Your task to perform on an android device: Where can I buy a nice beach cooler? Image 0: 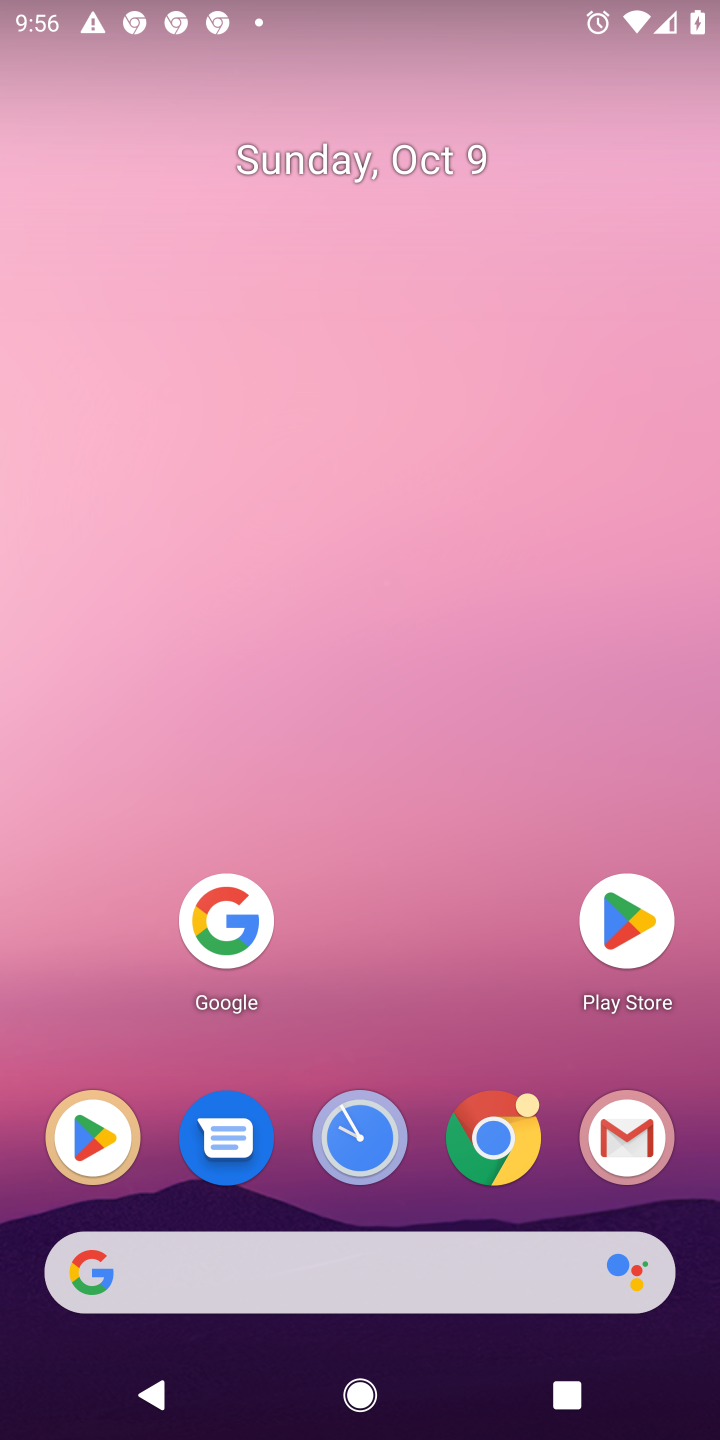
Step 0: click (221, 916)
Your task to perform on an android device: Where can I buy a nice beach cooler? Image 1: 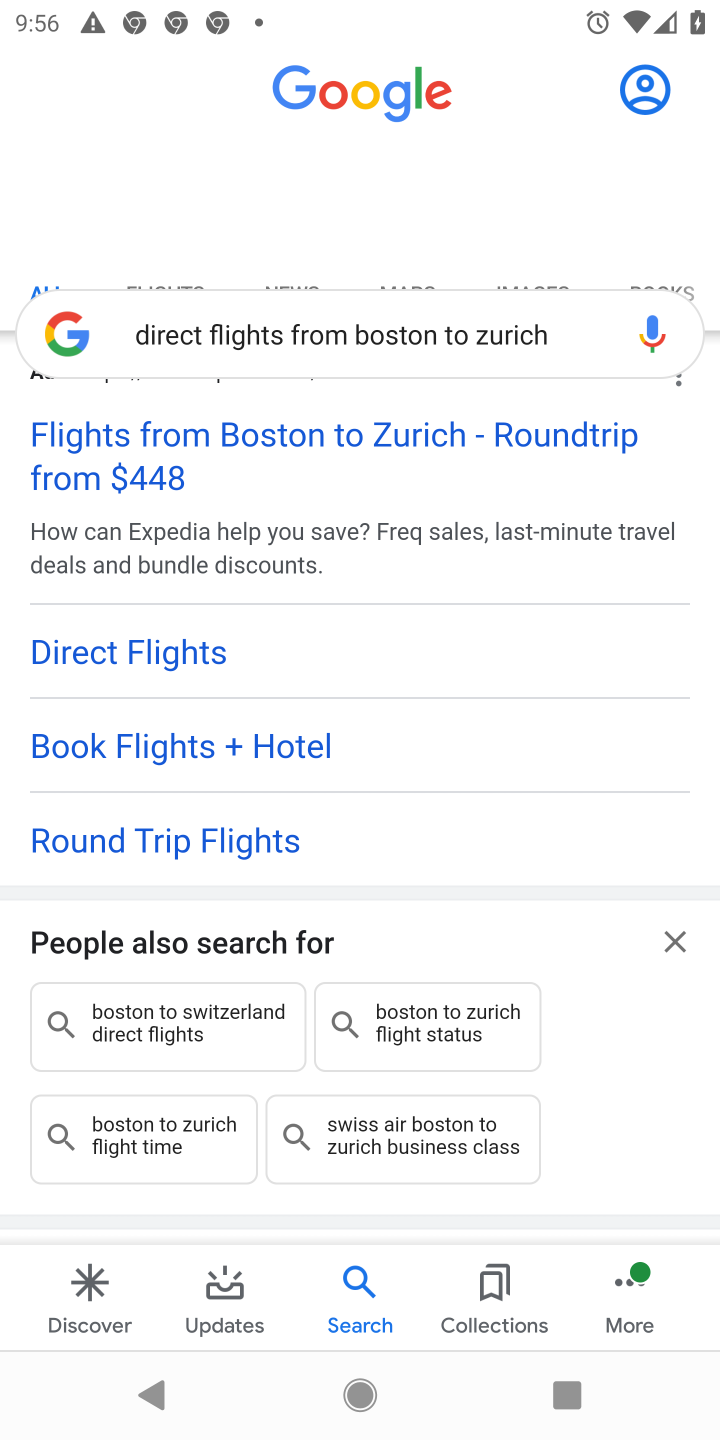
Step 1: click (426, 317)
Your task to perform on an android device: Where can I buy a nice beach cooler? Image 2: 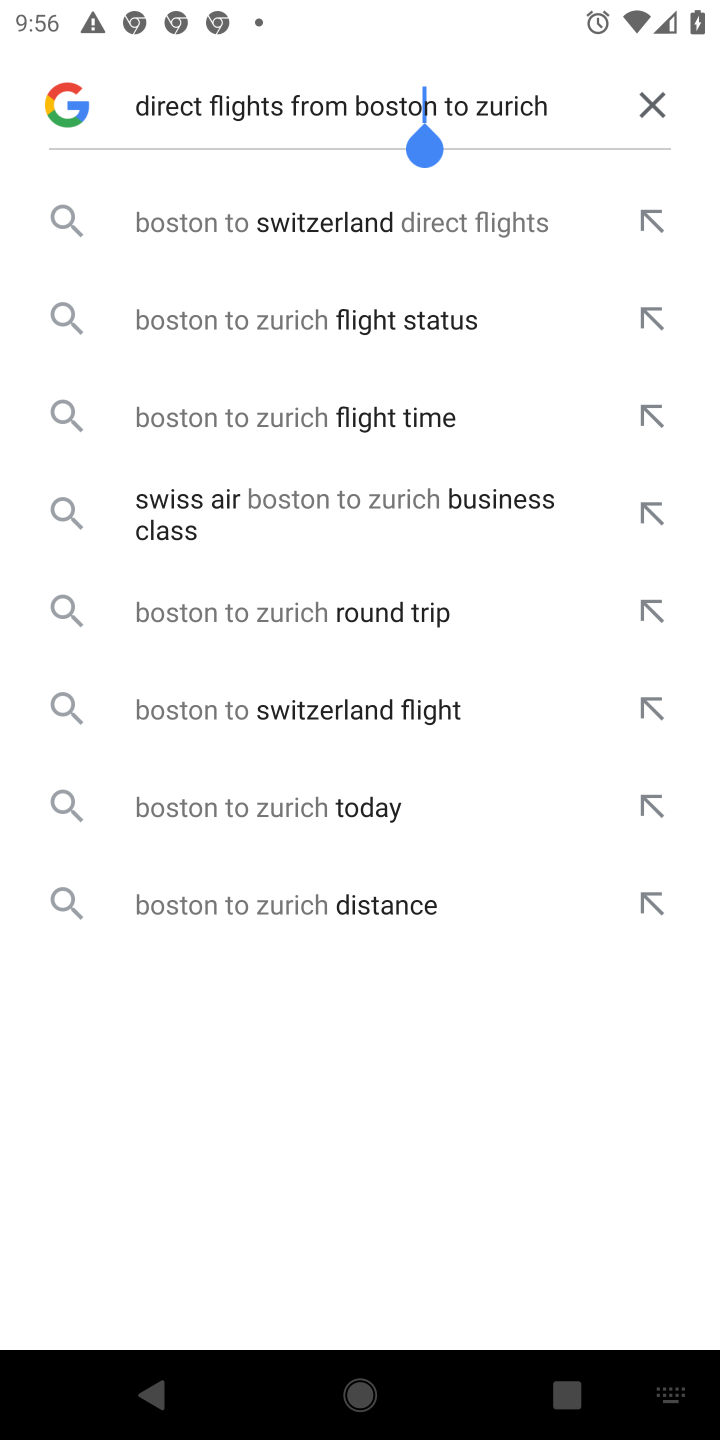
Step 2: click (657, 82)
Your task to perform on an android device: Where can I buy a nice beach cooler? Image 3: 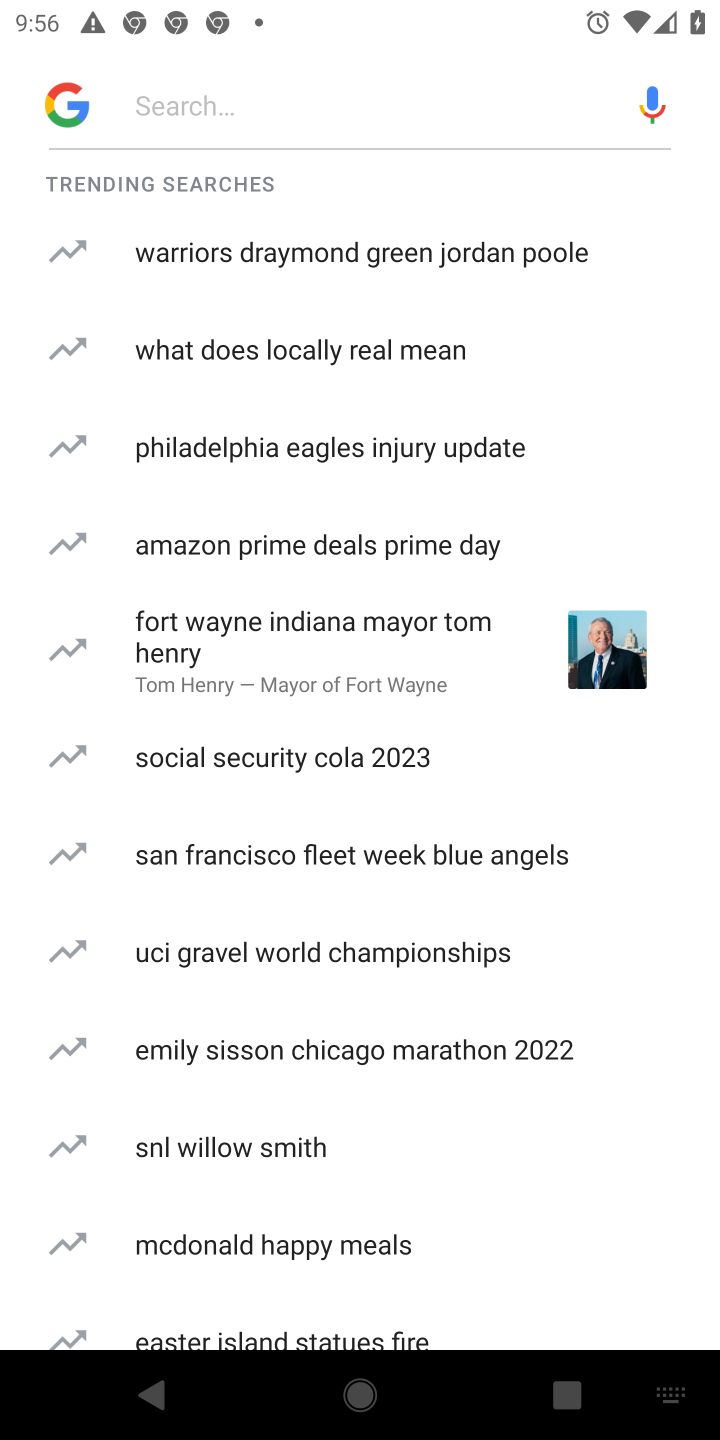
Step 3: click (274, 80)
Your task to perform on an android device: Where can I buy a nice beach cooler? Image 4: 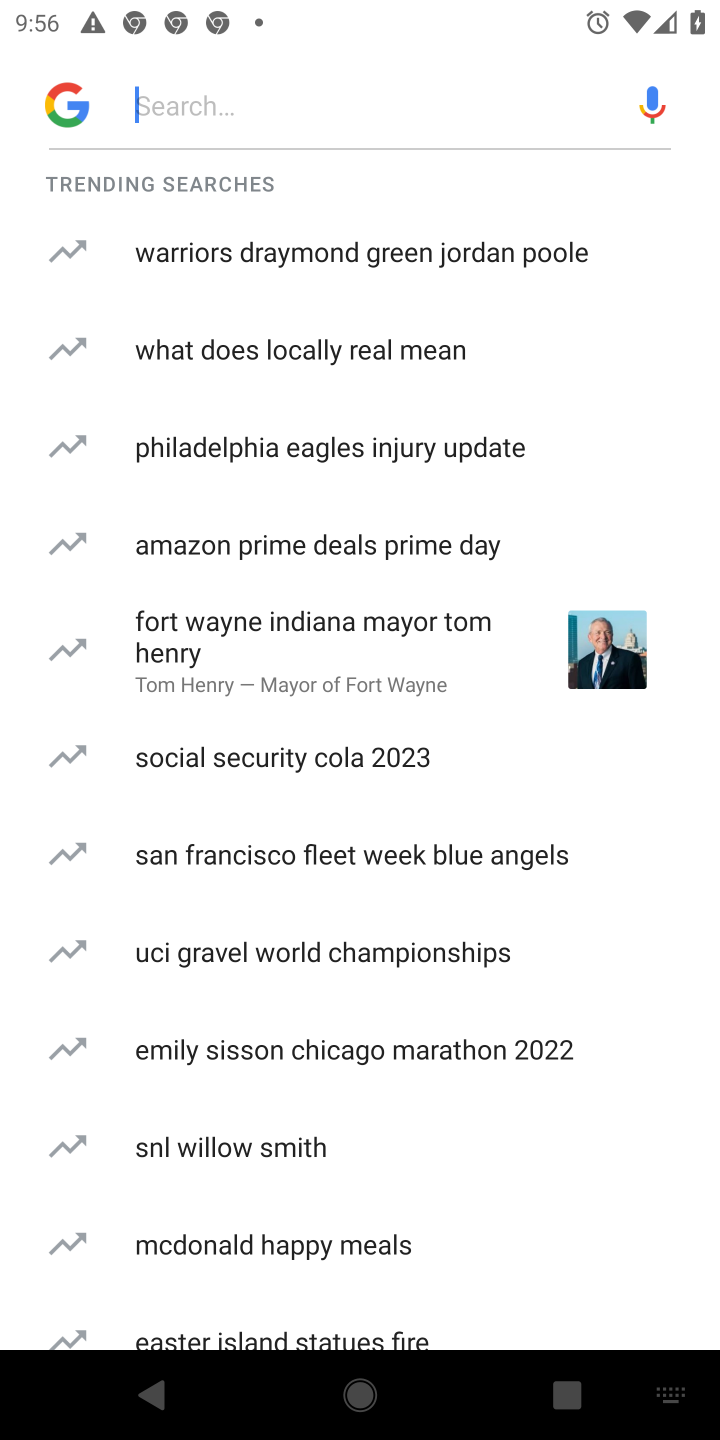
Step 4: click (328, 81)
Your task to perform on an android device: Where can I buy a nice beach cooler? Image 5: 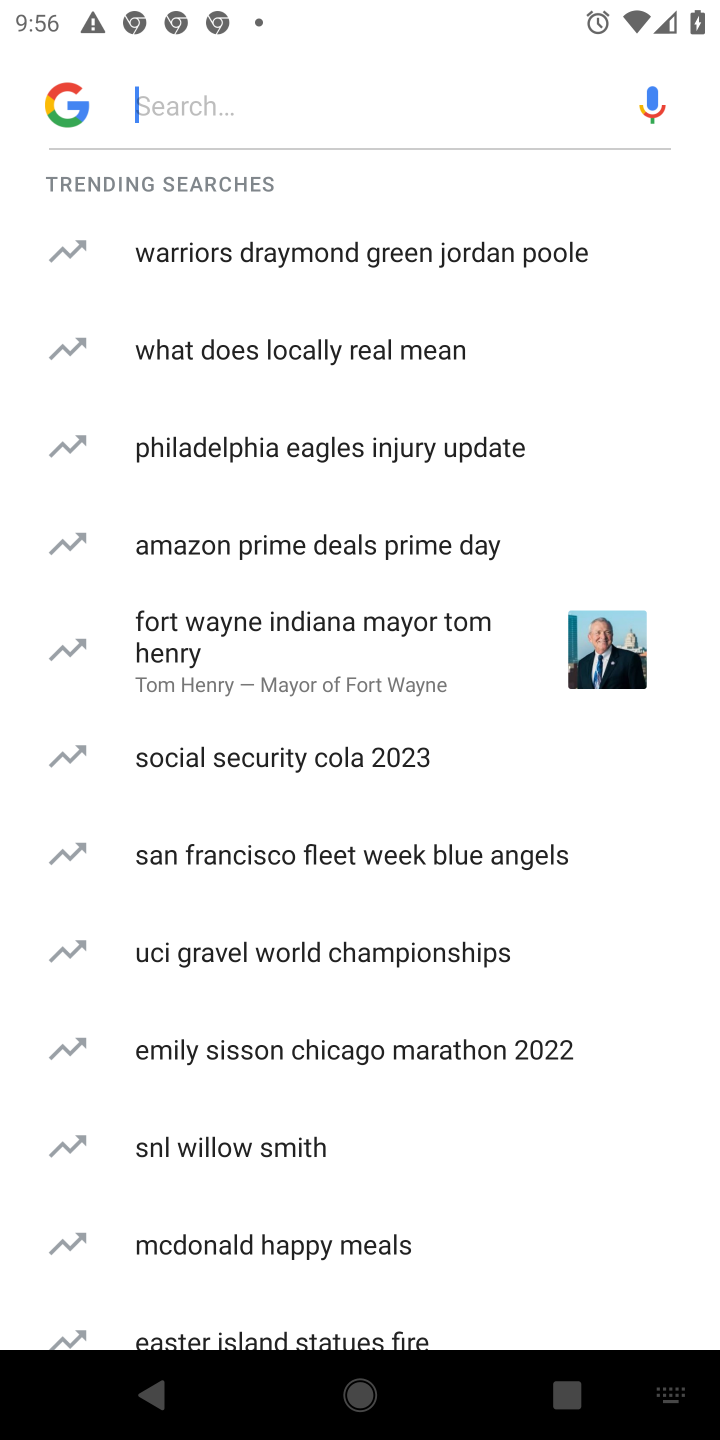
Step 5: type "flights from Boston to Zurich \\\\\\\\\\\"
Your task to perform on an android device: Where can I buy a nice beach cooler? Image 6: 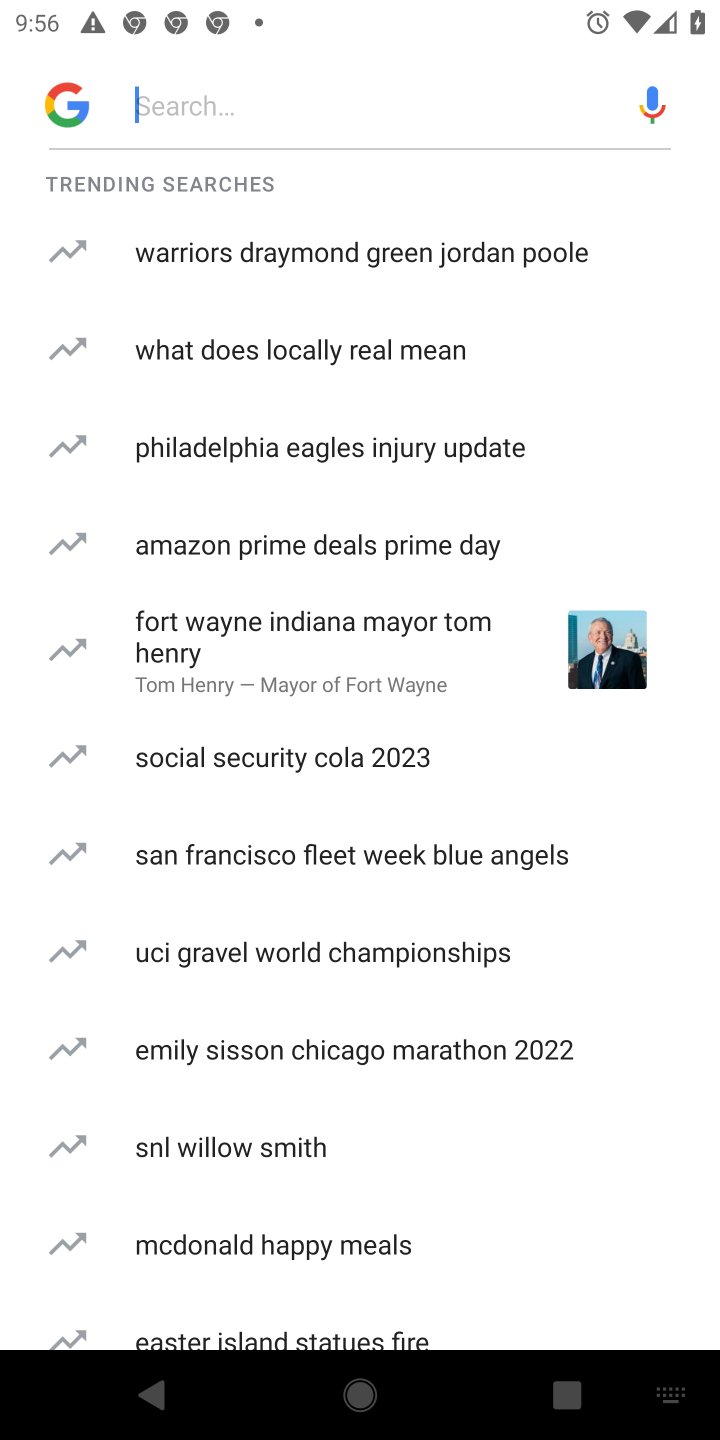
Step 6: click (361, 71)
Your task to perform on an android device: Where can I buy a nice beach cooler? Image 7: 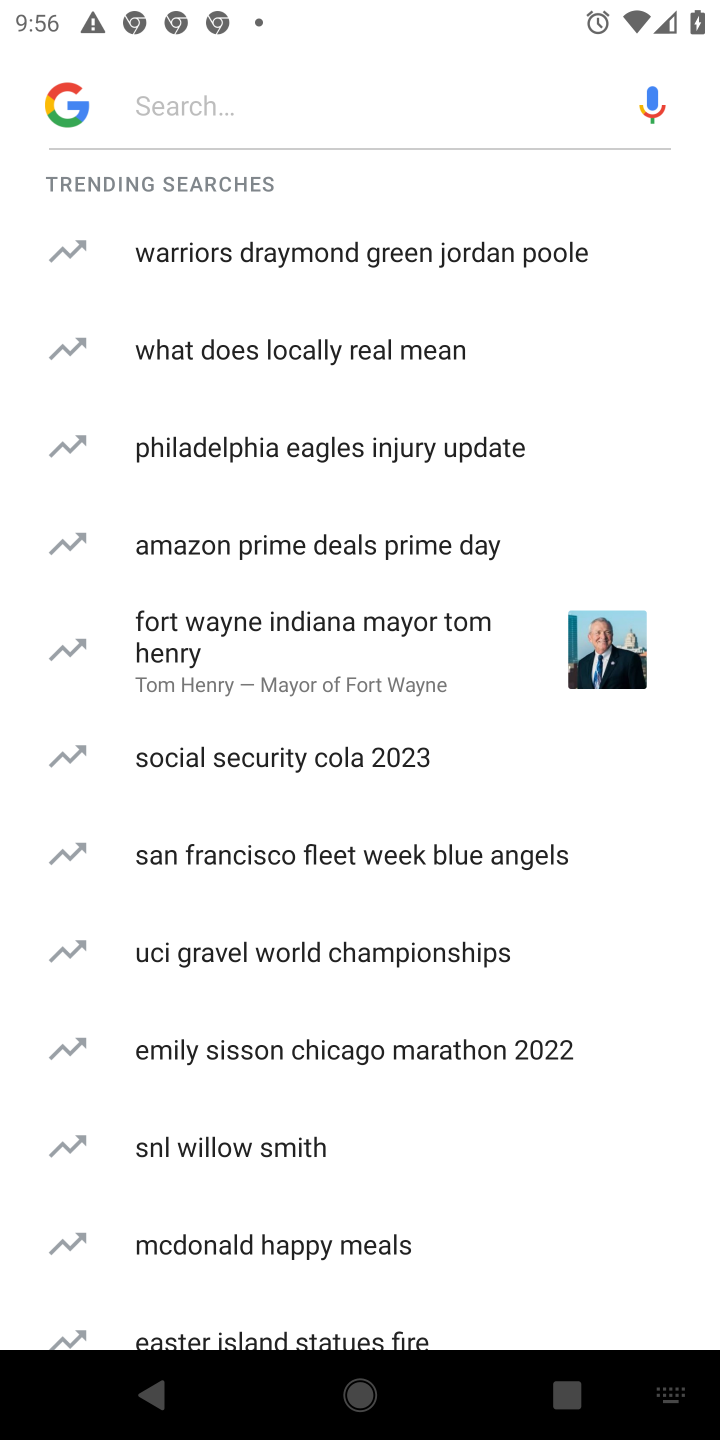
Step 7: type "Where can I buy a nice beach cooler? "
Your task to perform on an android device: Where can I buy a nice beach cooler? Image 8: 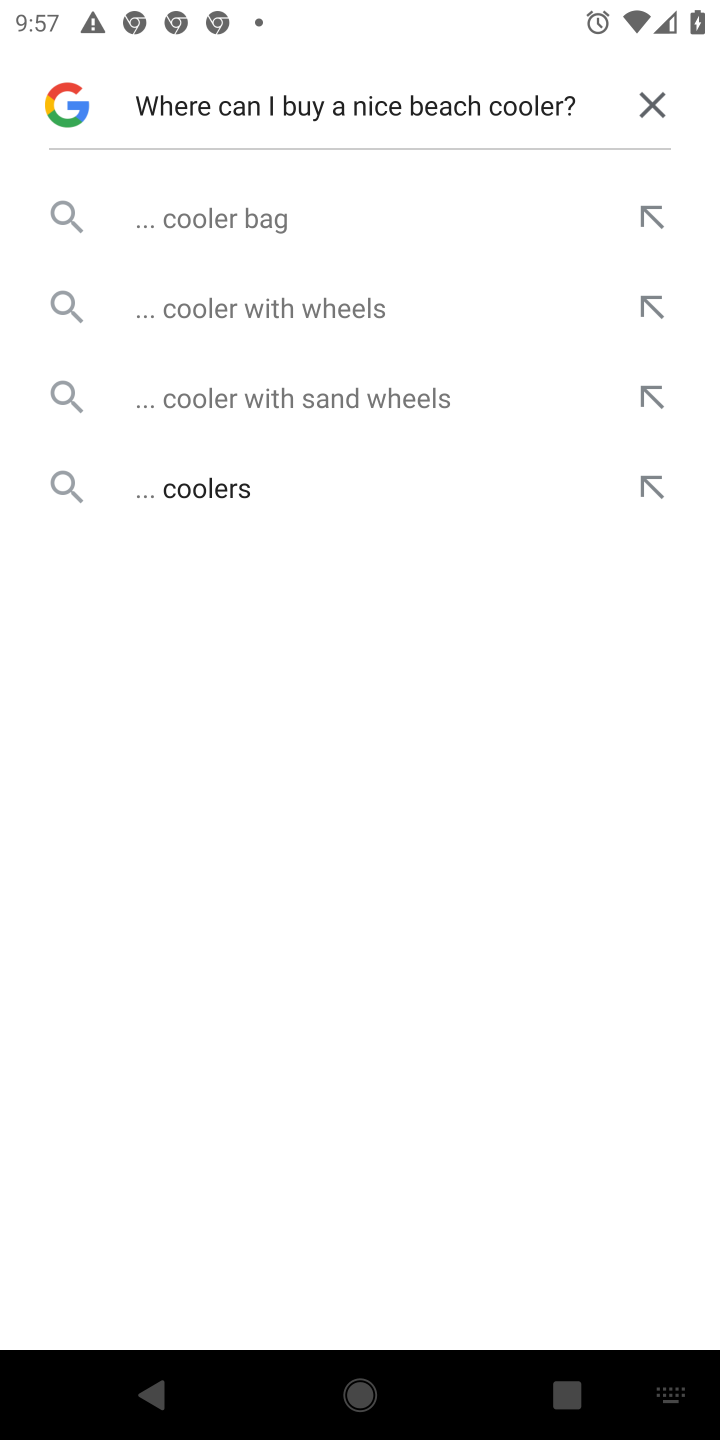
Step 8: click (226, 491)
Your task to perform on an android device: Where can I buy a nice beach cooler? Image 9: 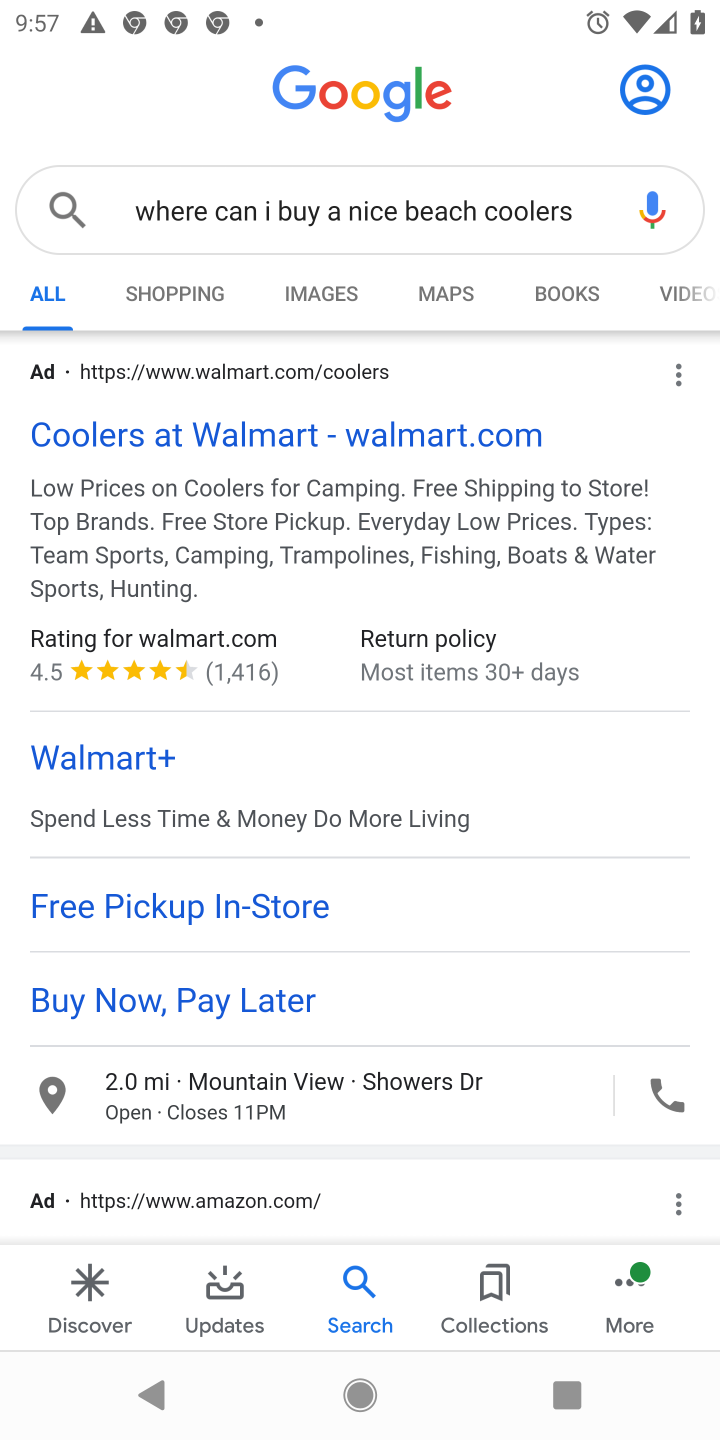
Step 9: click (246, 444)
Your task to perform on an android device: Where can I buy a nice beach cooler? Image 10: 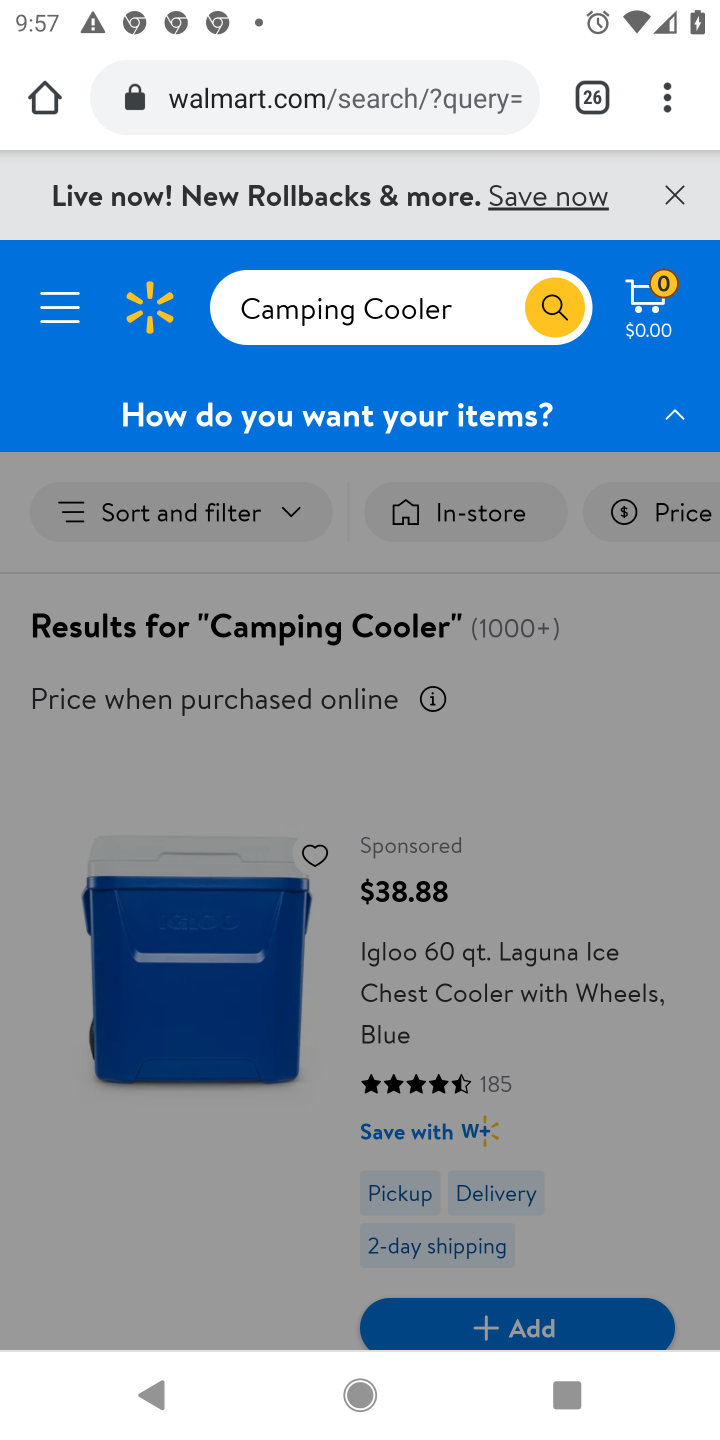
Step 10: drag from (279, 1201) to (333, 697)
Your task to perform on an android device: Where can I buy a nice beach cooler? Image 11: 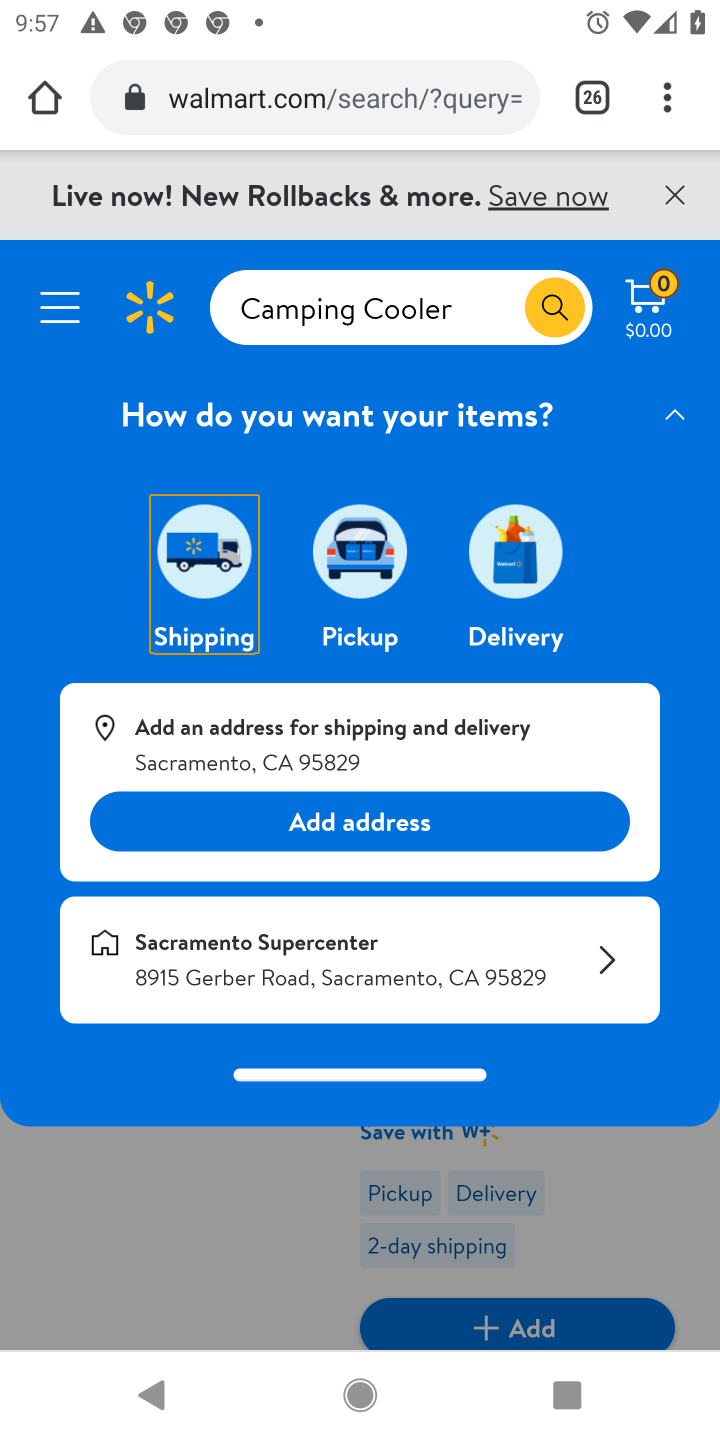
Step 11: click (682, 189)
Your task to perform on an android device: Where can I buy a nice beach cooler? Image 12: 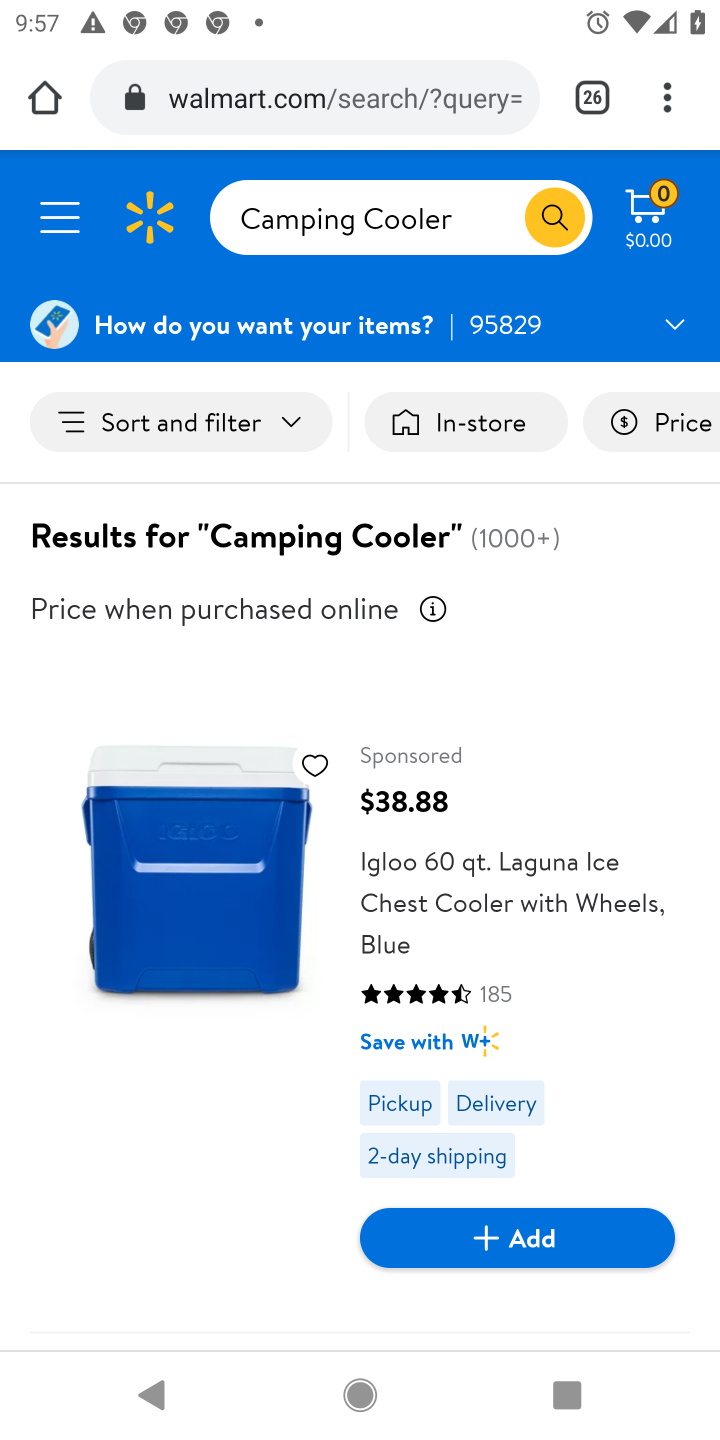
Step 12: task complete